Your task to perform on an android device: turn on bluetooth scan Image 0: 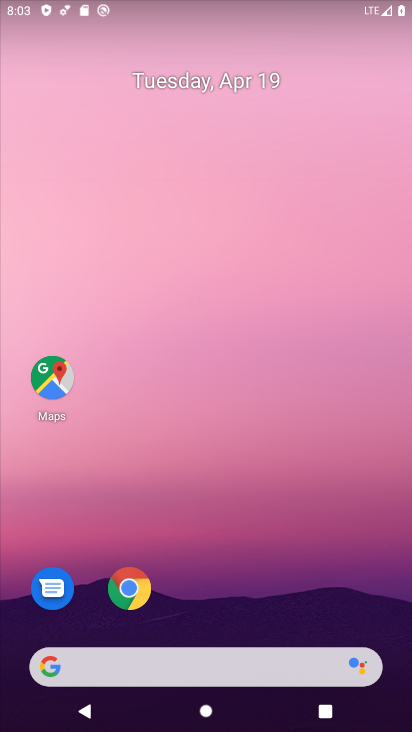
Step 0: drag from (214, 727) to (176, 42)
Your task to perform on an android device: turn on bluetooth scan Image 1: 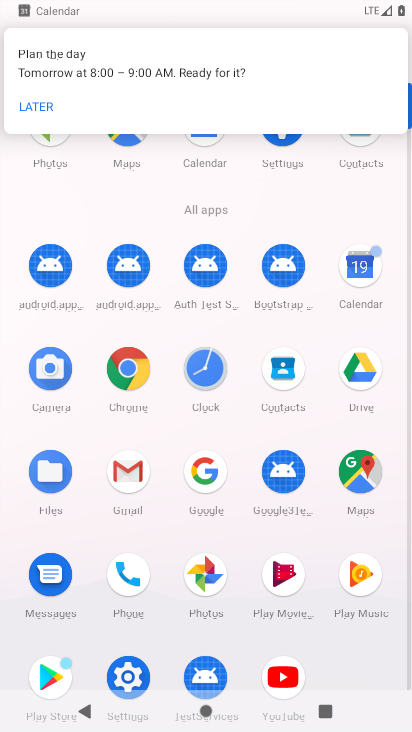
Step 1: click (124, 674)
Your task to perform on an android device: turn on bluetooth scan Image 2: 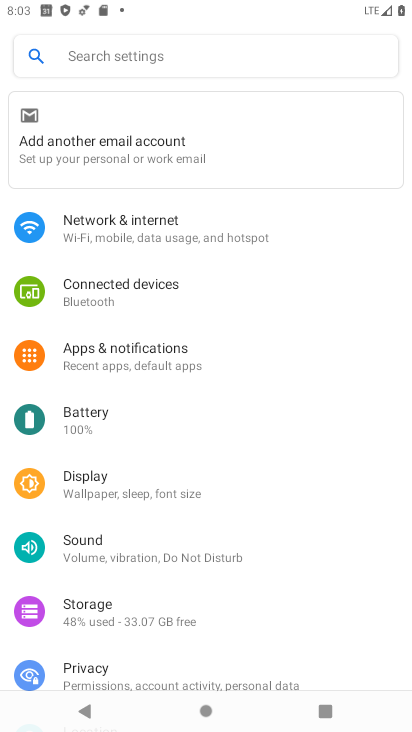
Step 2: drag from (185, 654) to (180, 245)
Your task to perform on an android device: turn on bluetooth scan Image 3: 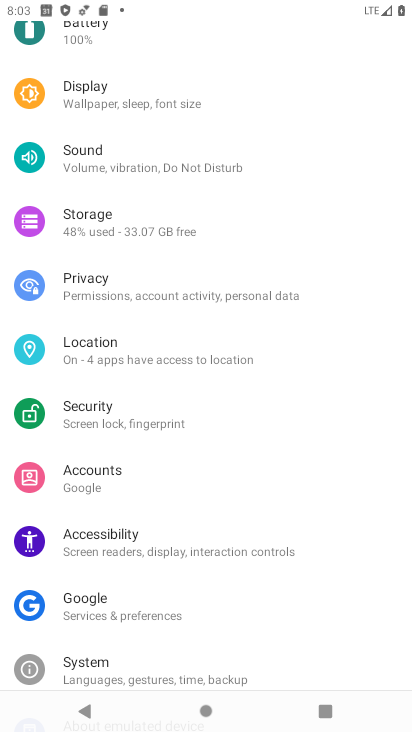
Step 3: click (105, 350)
Your task to perform on an android device: turn on bluetooth scan Image 4: 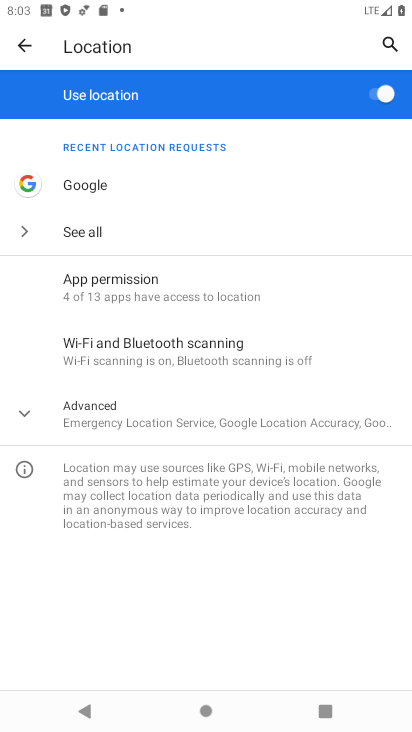
Step 4: click (139, 354)
Your task to perform on an android device: turn on bluetooth scan Image 5: 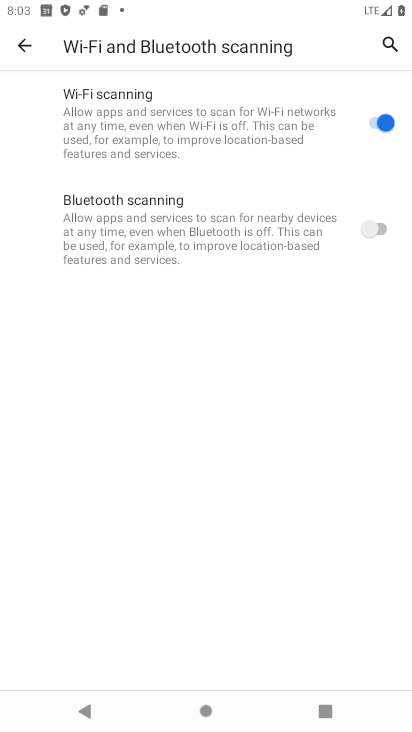
Step 5: click (380, 222)
Your task to perform on an android device: turn on bluetooth scan Image 6: 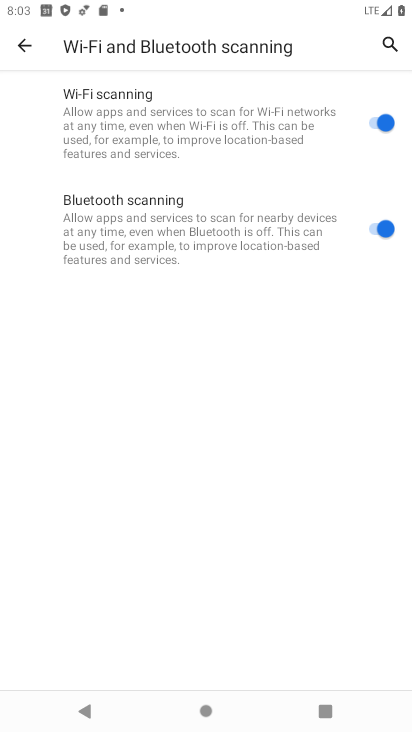
Step 6: task complete